Your task to perform on an android device: Go to eBay Image 0: 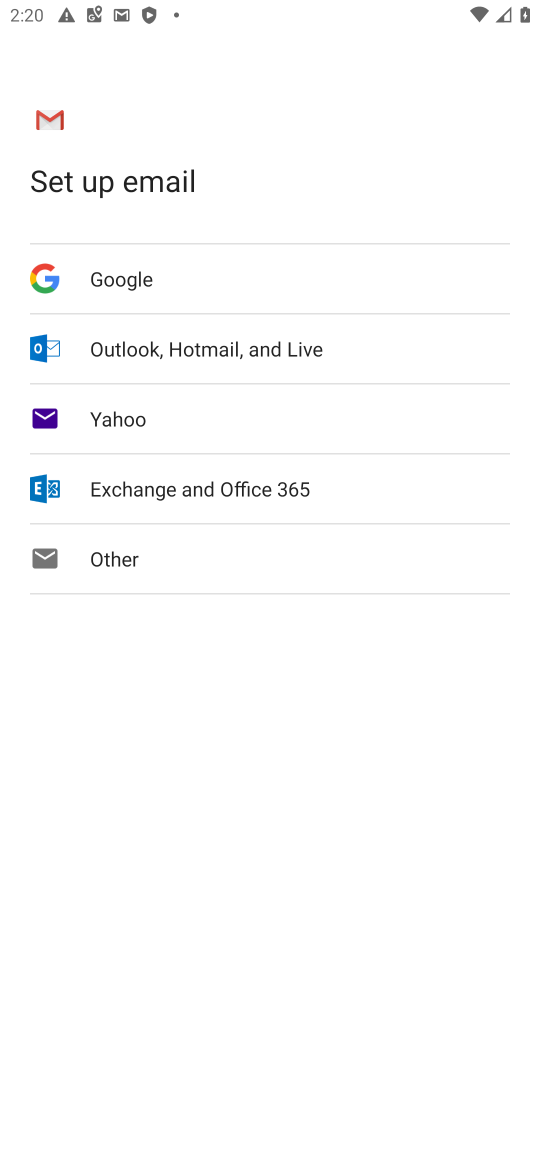
Step 0: press home button
Your task to perform on an android device: Go to eBay Image 1: 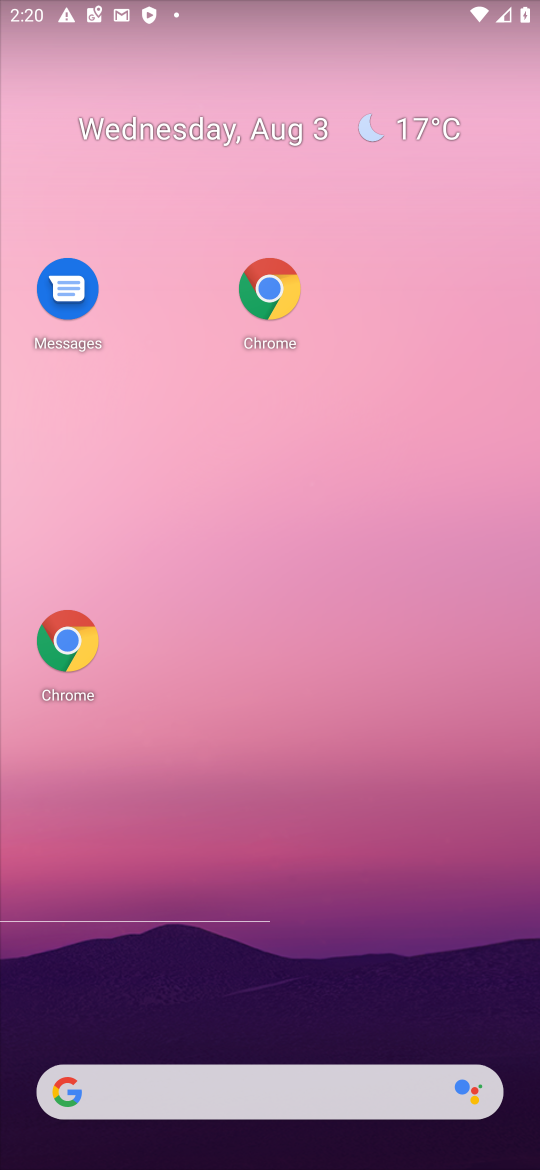
Step 1: click (54, 635)
Your task to perform on an android device: Go to eBay Image 2: 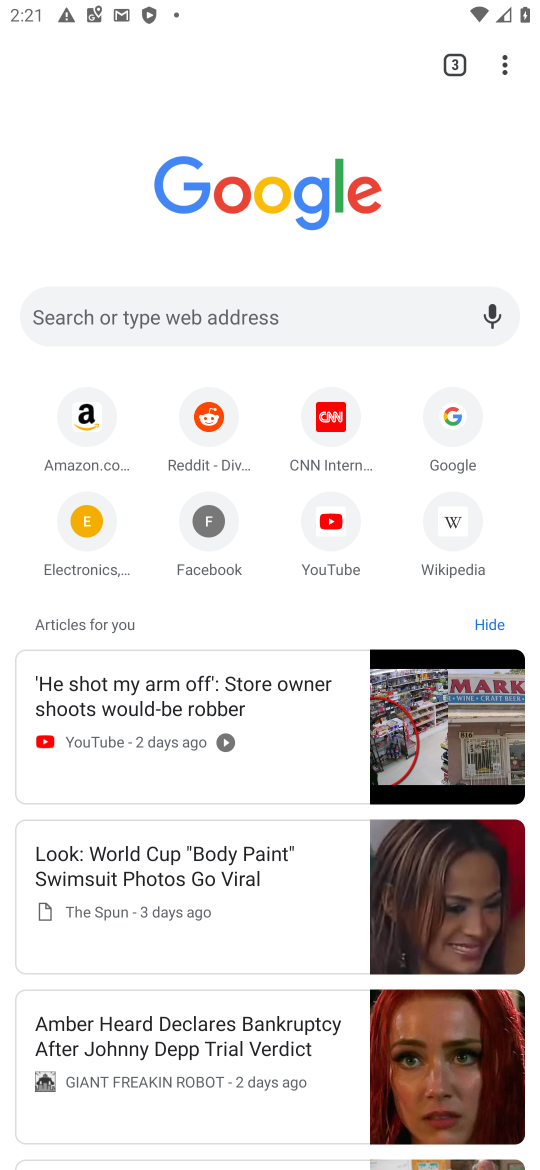
Step 2: click (105, 538)
Your task to perform on an android device: Go to eBay Image 3: 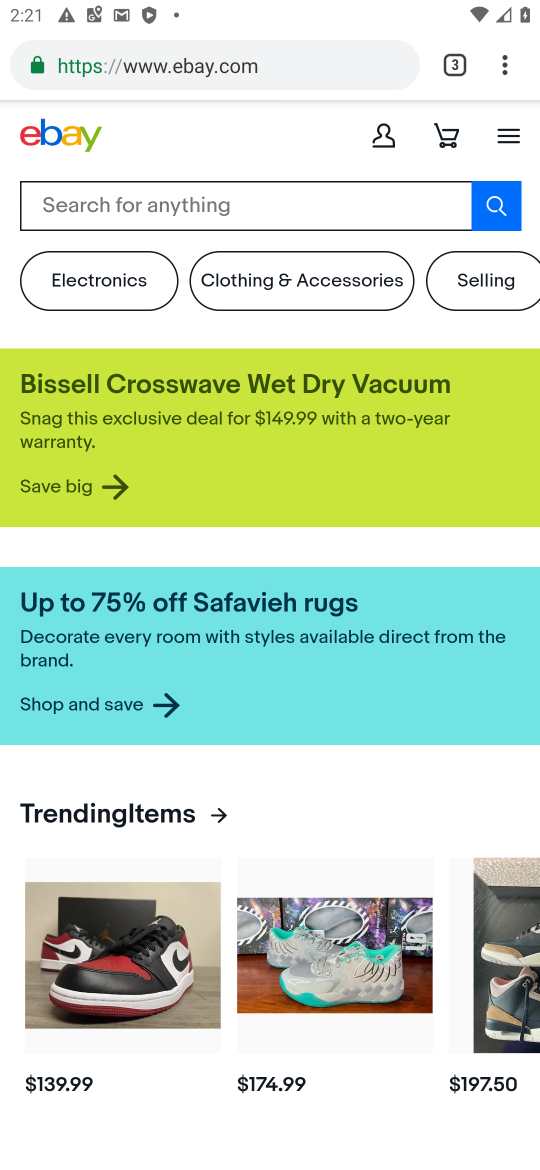
Step 3: task complete